Your task to perform on an android device: Go to privacy settings Image 0: 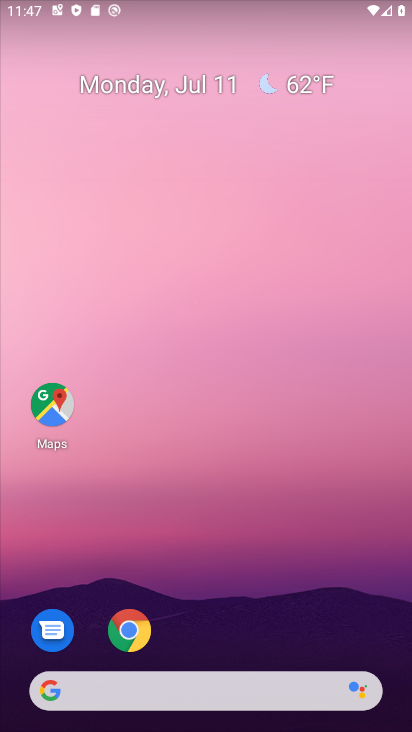
Step 0: drag from (289, 689) to (303, 5)
Your task to perform on an android device: Go to privacy settings Image 1: 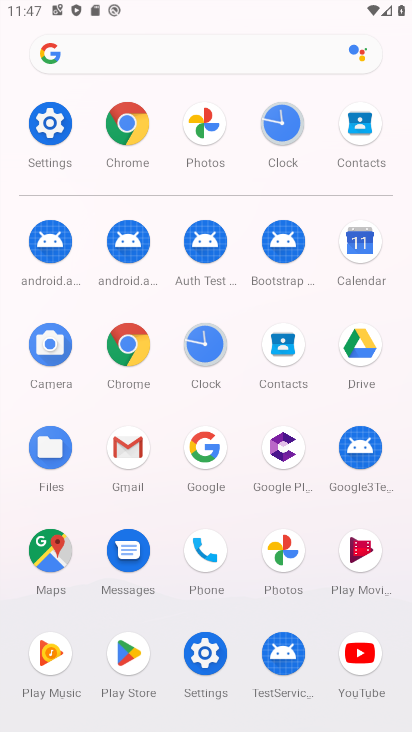
Step 1: click (30, 119)
Your task to perform on an android device: Go to privacy settings Image 2: 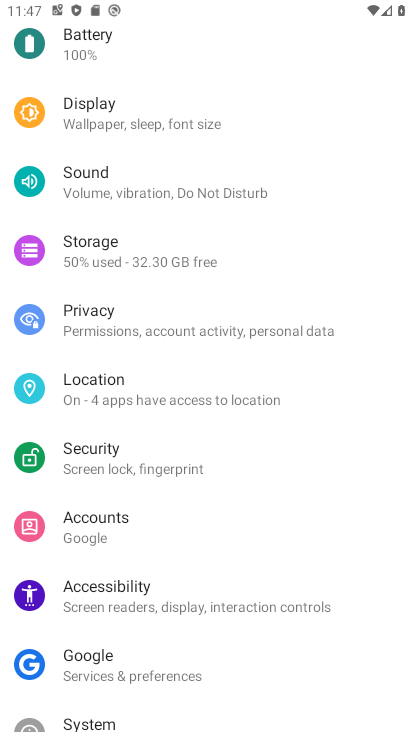
Step 2: drag from (176, 63) to (191, 489)
Your task to perform on an android device: Go to privacy settings Image 3: 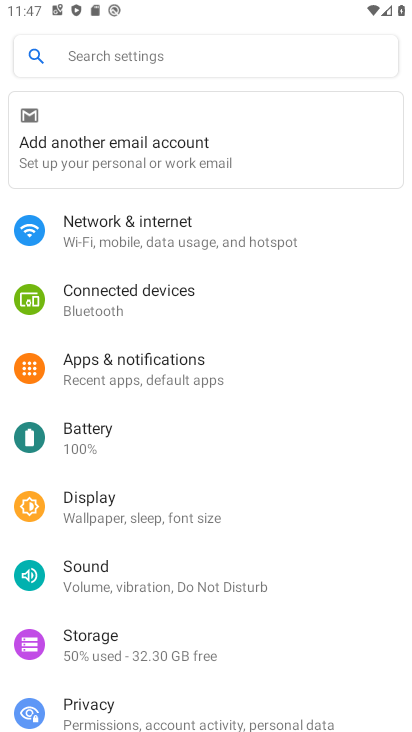
Step 3: drag from (114, 642) to (165, 340)
Your task to perform on an android device: Go to privacy settings Image 4: 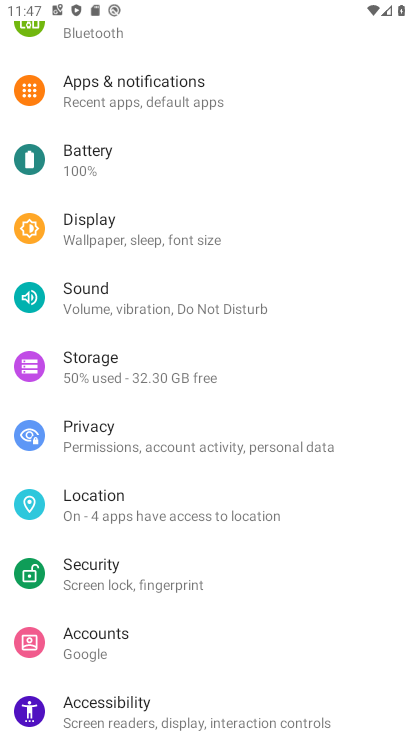
Step 4: click (141, 438)
Your task to perform on an android device: Go to privacy settings Image 5: 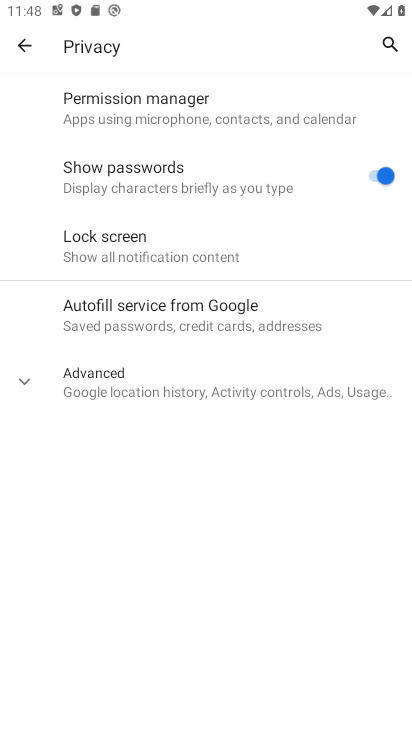
Step 5: task complete